Your task to perform on an android device: clear all cookies in the chrome app Image 0: 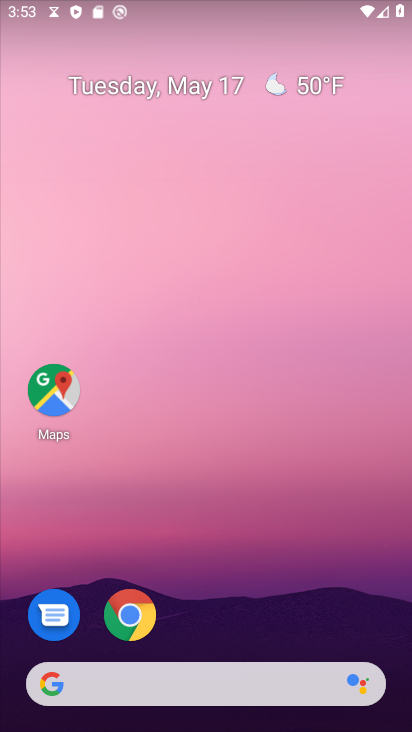
Step 0: drag from (226, 578) to (35, 3)
Your task to perform on an android device: clear all cookies in the chrome app Image 1: 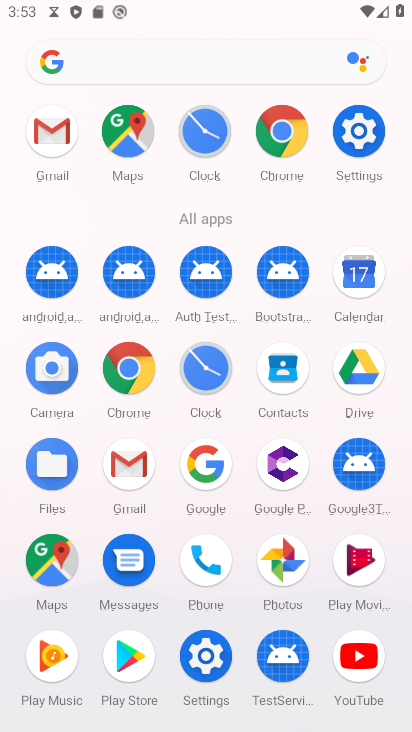
Step 1: click (268, 124)
Your task to perform on an android device: clear all cookies in the chrome app Image 2: 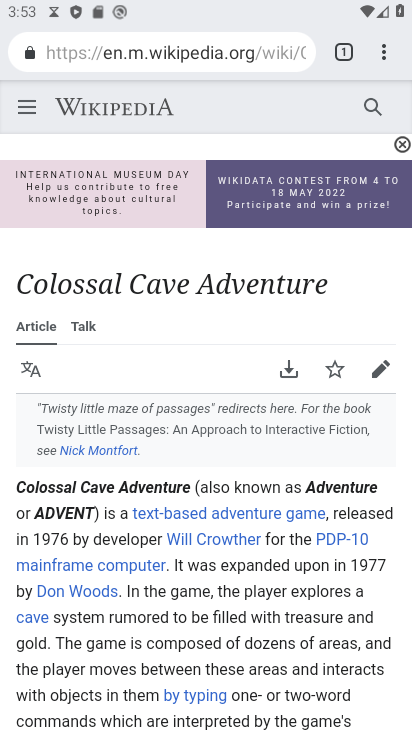
Step 2: drag from (379, 50) to (198, 636)
Your task to perform on an android device: clear all cookies in the chrome app Image 3: 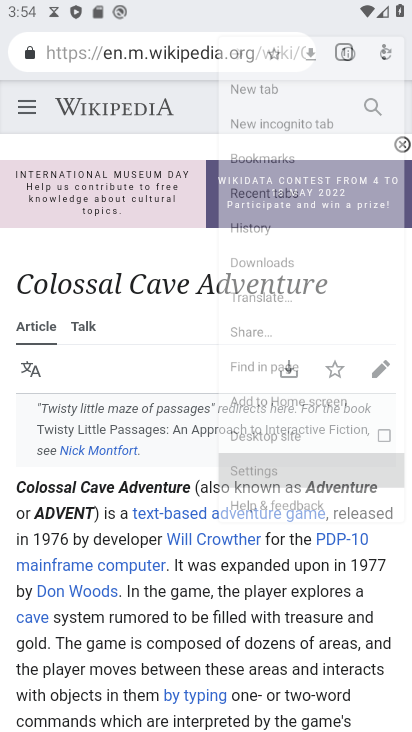
Step 3: click (205, 630)
Your task to perform on an android device: clear all cookies in the chrome app Image 4: 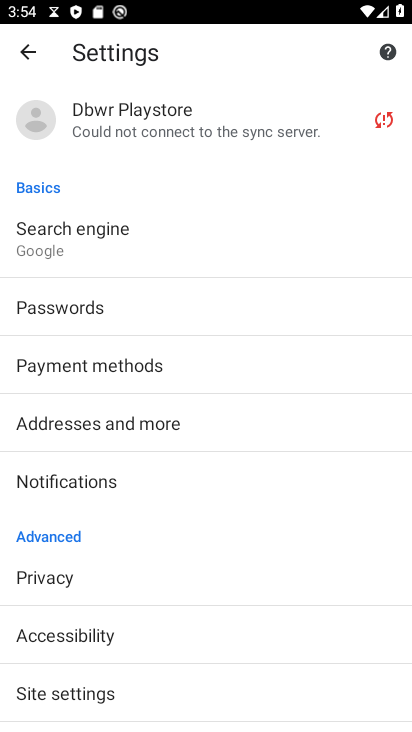
Step 4: click (53, 693)
Your task to perform on an android device: clear all cookies in the chrome app Image 5: 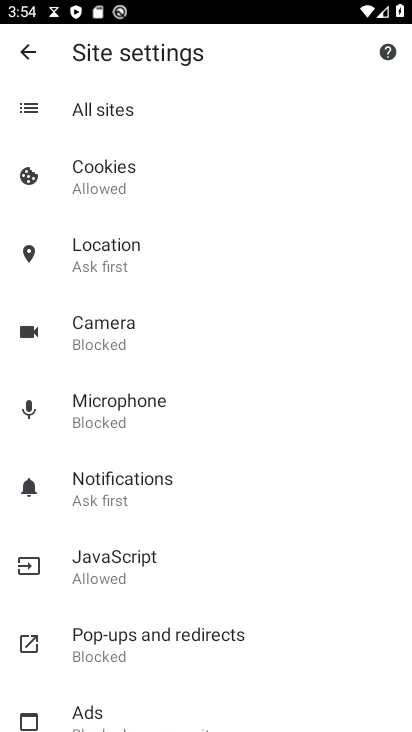
Step 5: click (96, 176)
Your task to perform on an android device: clear all cookies in the chrome app Image 6: 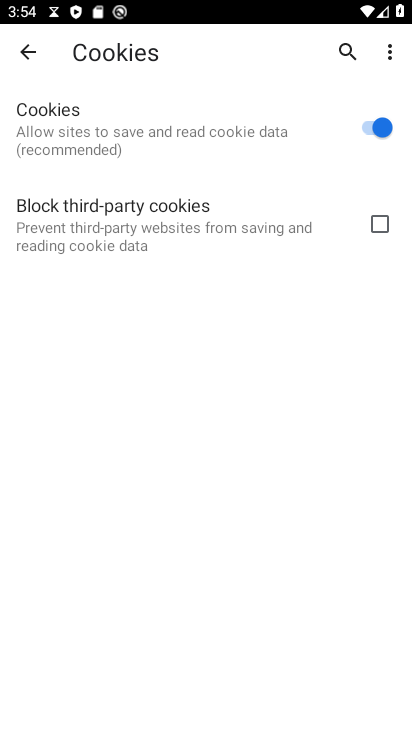
Step 6: click (113, 129)
Your task to perform on an android device: clear all cookies in the chrome app Image 7: 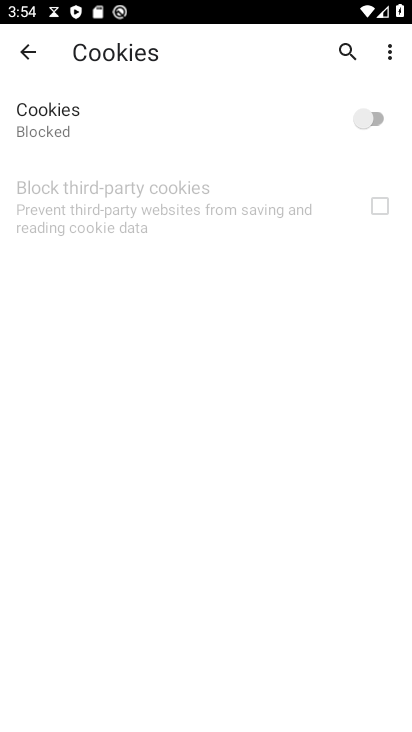
Step 7: click (358, 115)
Your task to perform on an android device: clear all cookies in the chrome app Image 8: 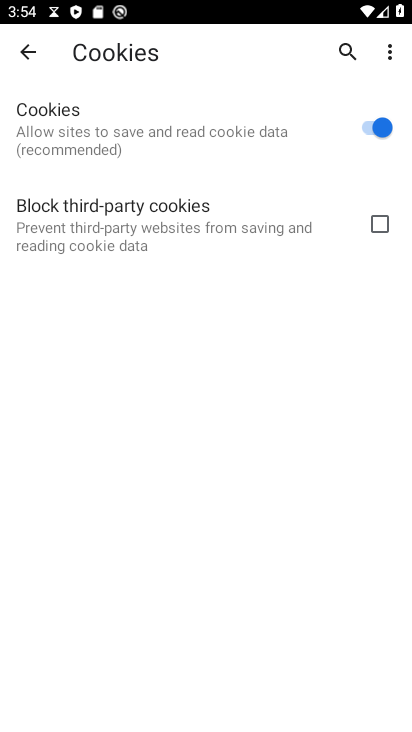
Step 8: task complete